Your task to perform on an android device: set the timer Image 0: 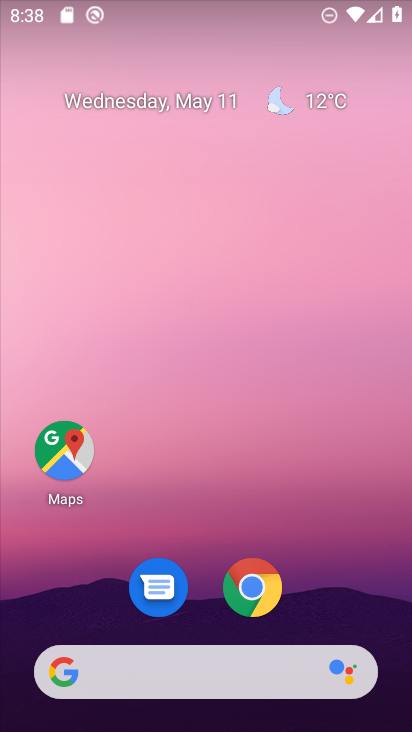
Step 0: drag from (344, 571) to (287, 227)
Your task to perform on an android device: set the timer Image 1: 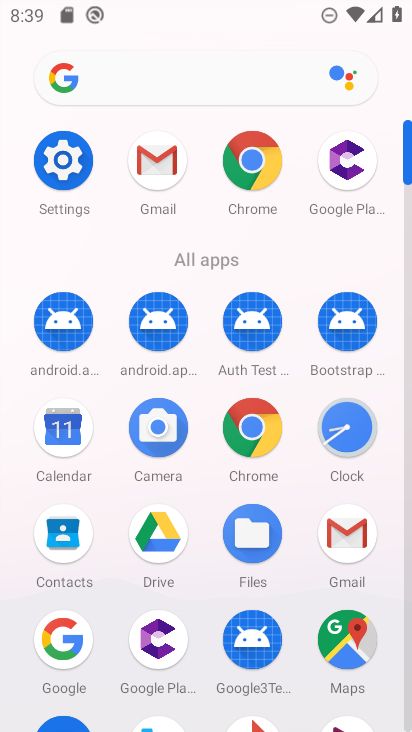
Step 1: drag from (216, 268) to (162, 113)
Your task to perform on an android device: set the timer Image 2: 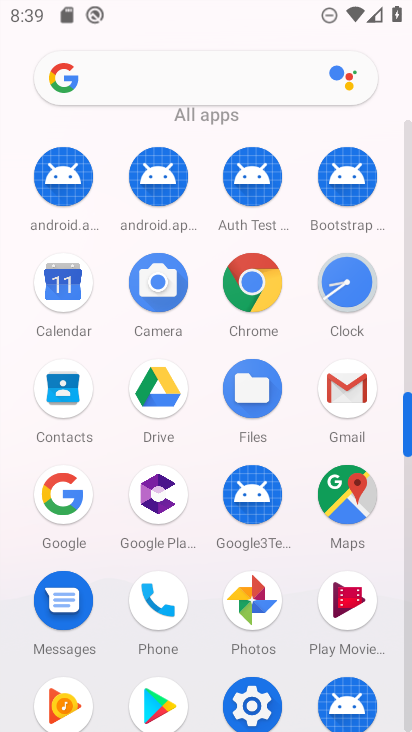
Step 2: click (340, 311)
Your task to perform on an android device: set the timer Image 3: 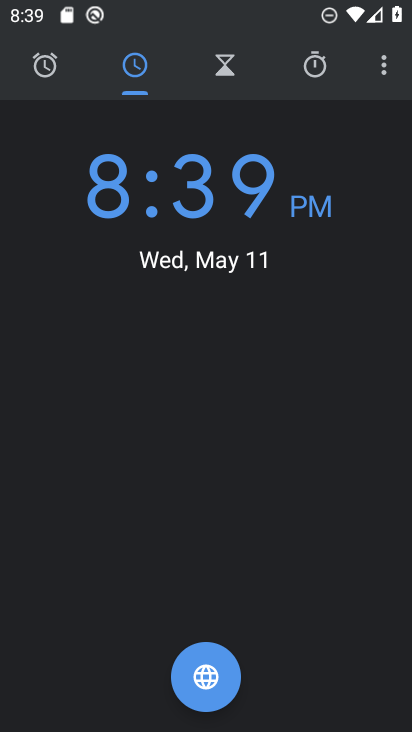
Step 3: click (237, 73)
Your task to perform on an android device: set the timer Image 4: 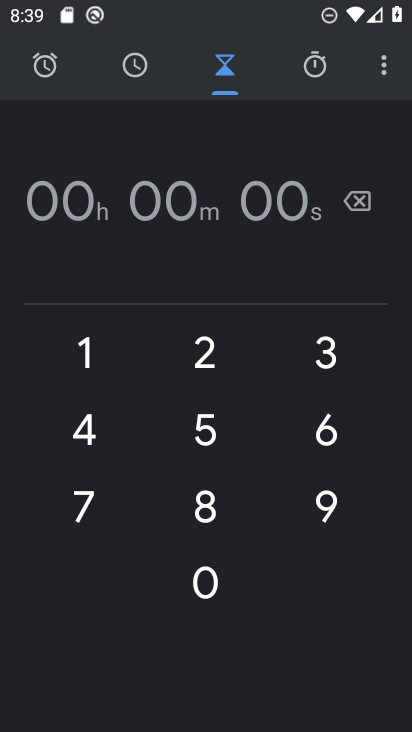
Step 4: click (197, 350)
Your task to perform on an android device: set the timer Image 5: 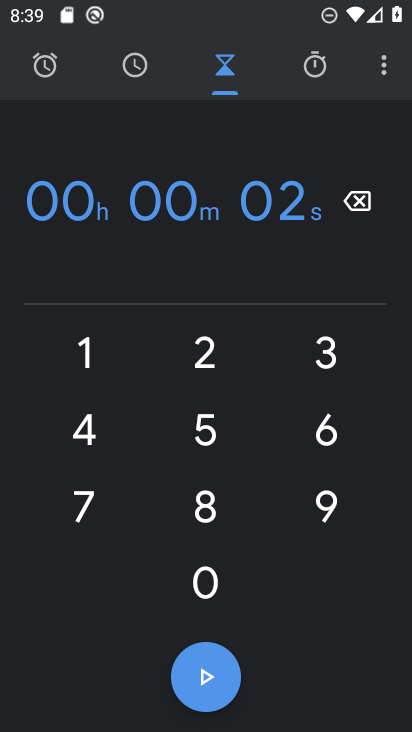
Step 5: click (216, 432)
Your task to perform on an android device: set the timer Image 6: 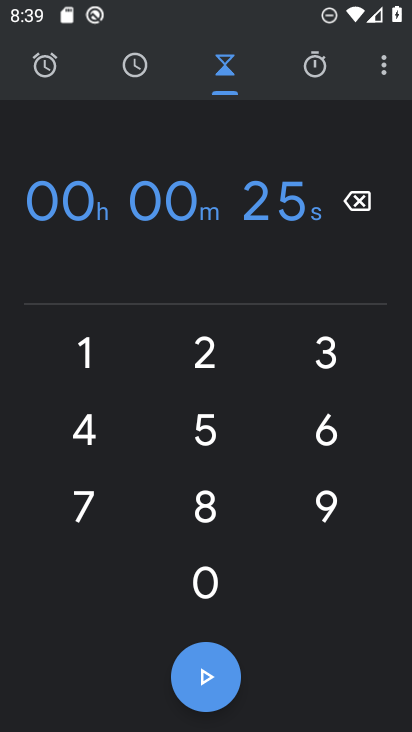
Step 6: click (205, 384)
Your task to perform on an android device: set the timer Image 7: 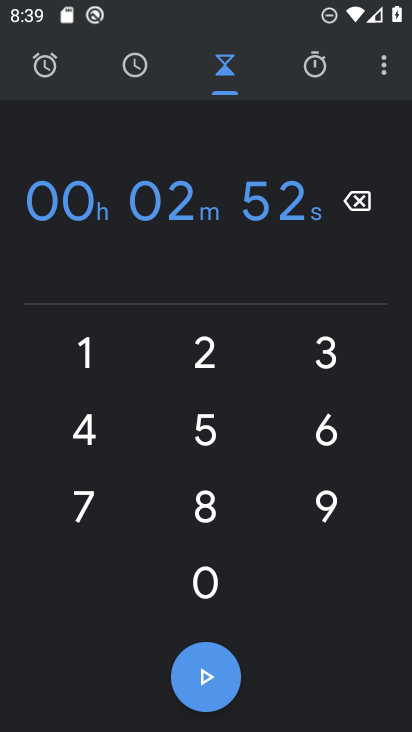
Step 7: click (208, 434)
Your task to perform on an android device: set the timer Image 8: 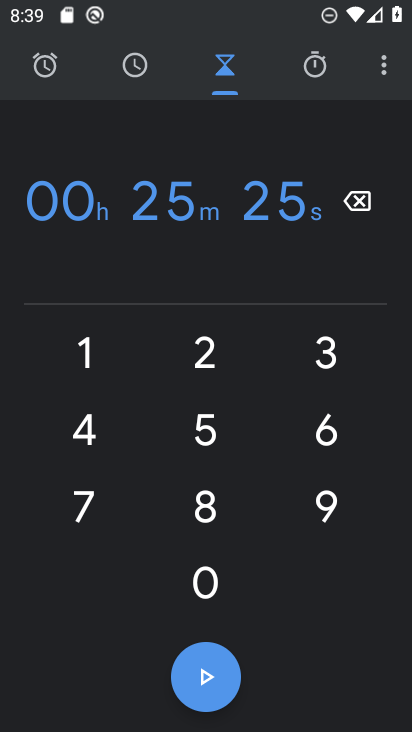
Step 8: click (203, 362)
Your task to perform on an android device: set the timer Image 9: 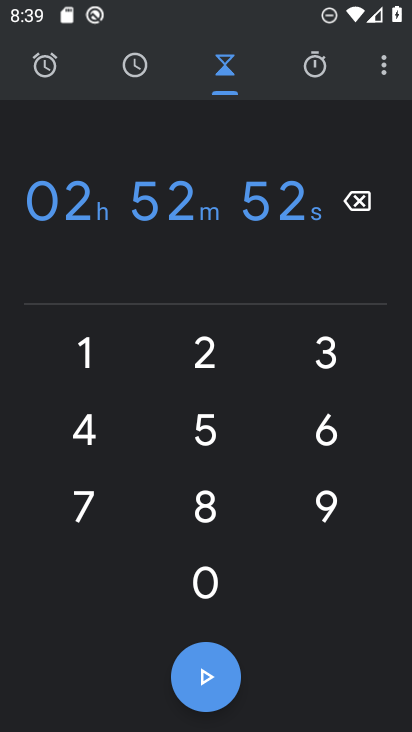
Step 9: click (215, 420)
Your task to perform on an android device: set the timer Image 10: 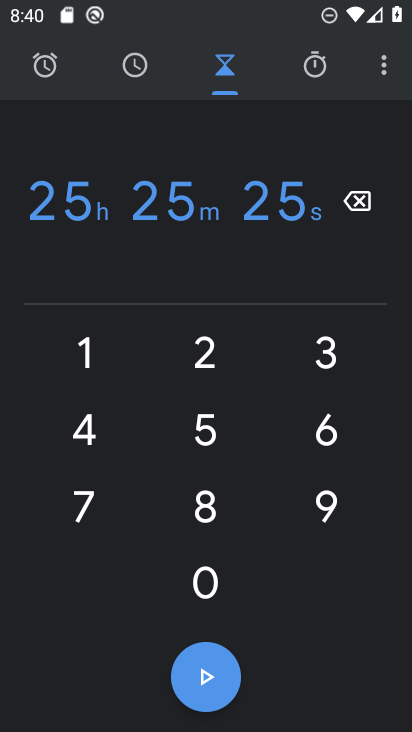
Step 10: task complete